Your task to perform on an android device: Do I have any events this weekend? Image 0: 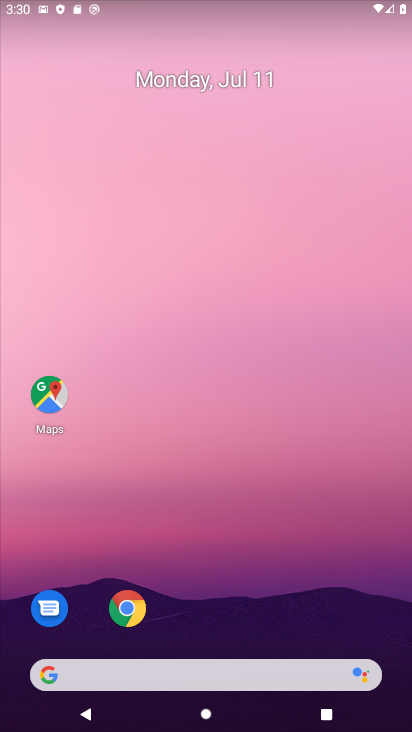
Step 0: drag from (234, 658) to (155, 176)
Your task to perform on an android device: Do I have any events this weekend? Image 1: 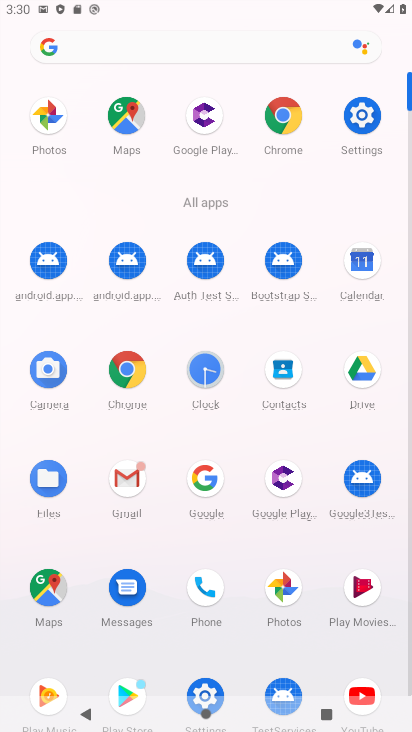
Step 1: click (360, 269)
Your task to perform on an android device: Do I have any events this weekend? Image 2: 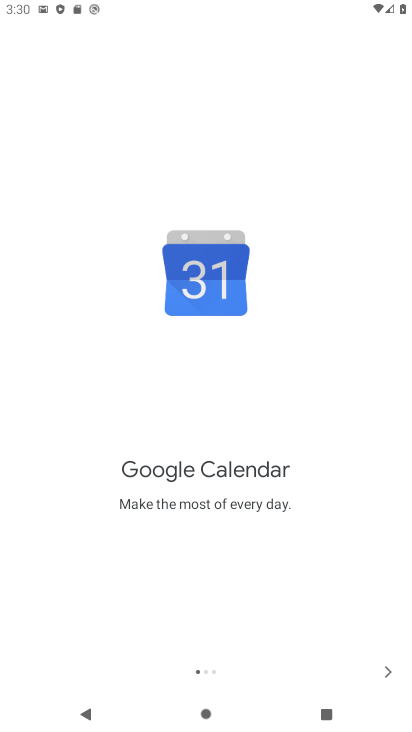
Step 2: drag from (346, 508) to (390, 648)
Your task to perform on an android device: Do I have any events this weekend? Image 3: 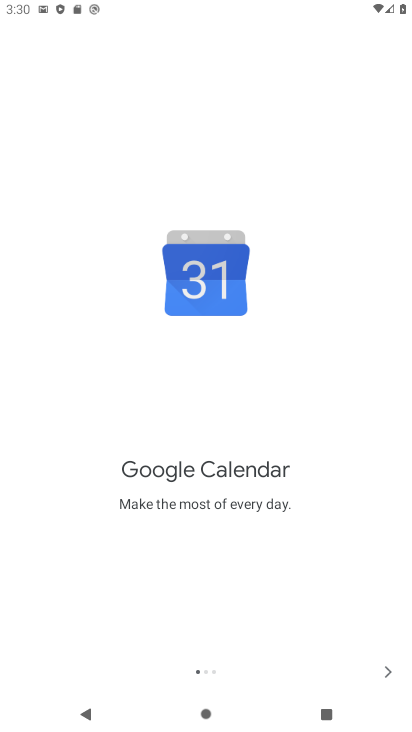
Step 3: click (386, 667)
Your task to perform on an android device: Do I have any events this weekend? Image 4: 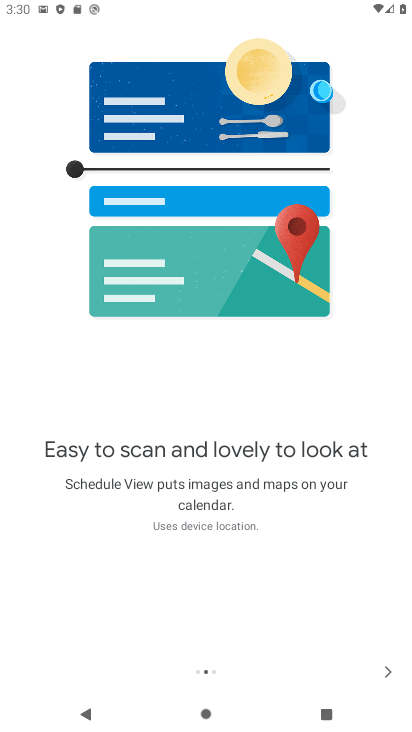
Step 4: click (386, 667)
Your task to perform on an android device: Do I have any events this weekend? Image 5: 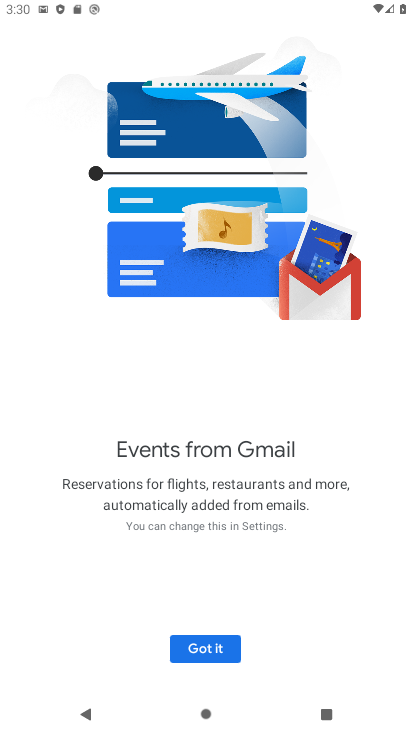
Step 5: click (223, 641)
Your task to perform on an android device: Do I have any events this weekend? Image 6: 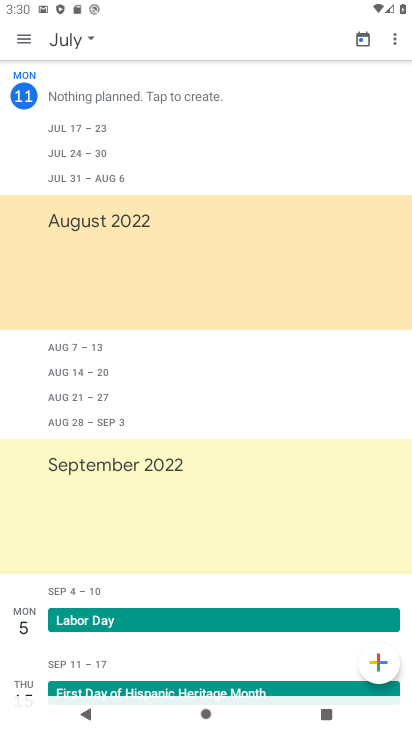
Step 6: click (84, 48)
Your task to perform on an android device: Do I have any events this weekend? Image 7: 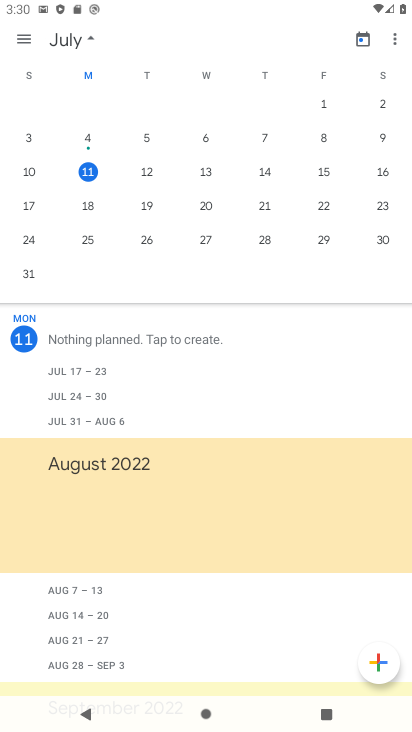
Step 7: click (25, 43)
Your task to perform on an android device: Do I have any events this weekend? Image 8: 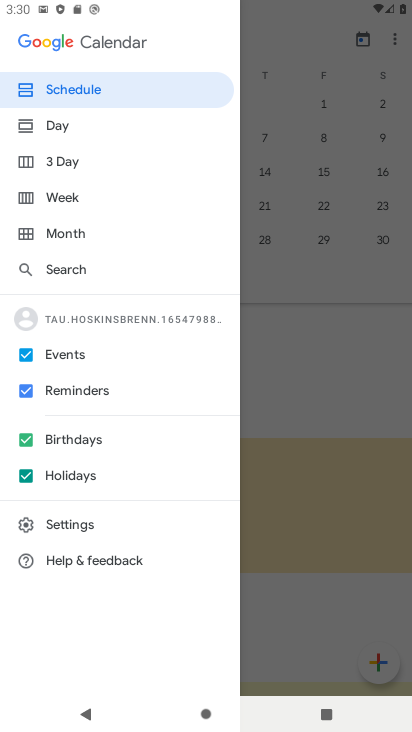
Step 8: click (65, 200)
Your task to perform on an android device: Do I have any events this weekend? Image 9: 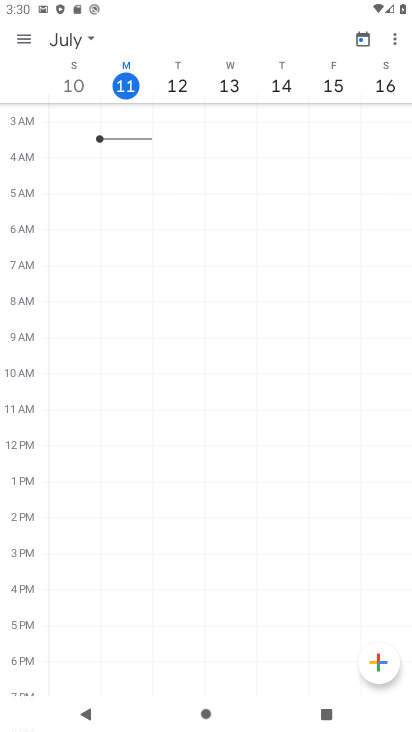
Step 9: task complete